Your task to perform on an android device: open sync settings in chrome Image 0: 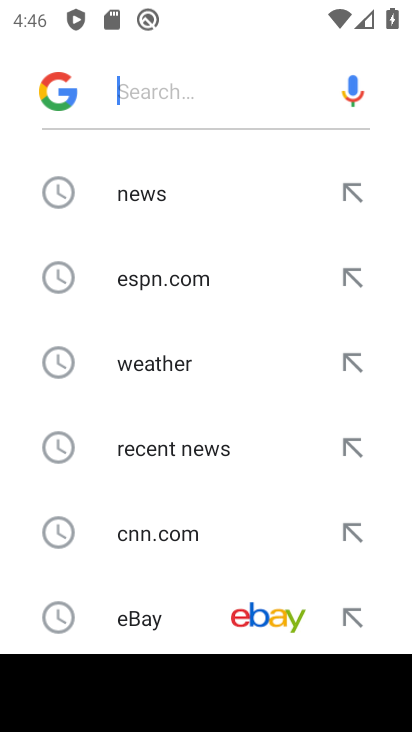
Step 0: press home button
Your task to perform on an android device: open sync settings in chrome Image 1: 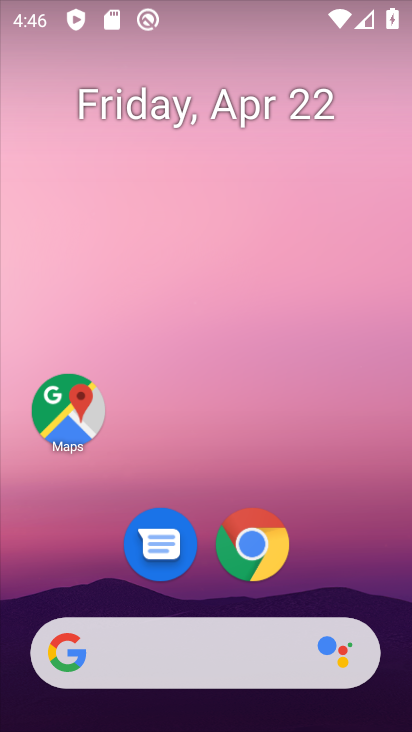
Step 1: click (259, 537)
Your task to perform on an android device: open sync settings in chrome Image 2: 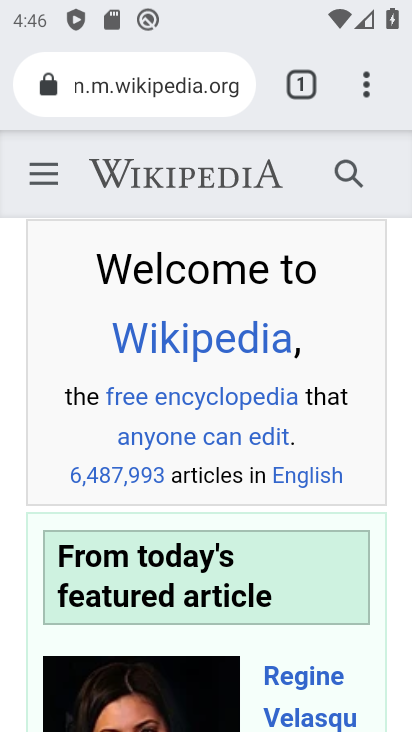
Step 2: click (368, 79)
Your task to perform on an android device: open sync settings in chrome Image 3: 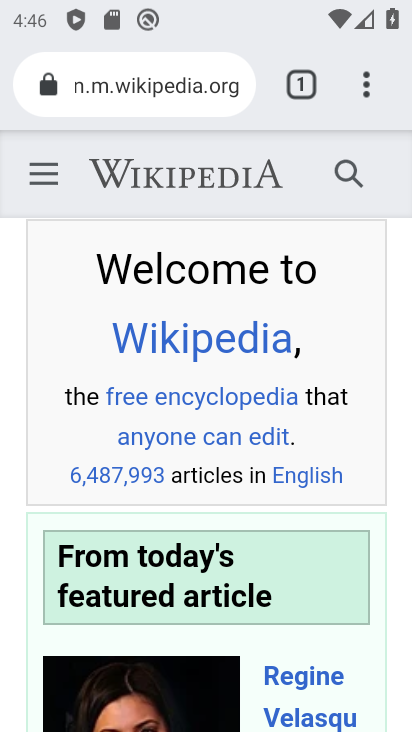
Step 3: click (368, 79)
Your task to perform on an android device: open sync settings in chrome Image 4: 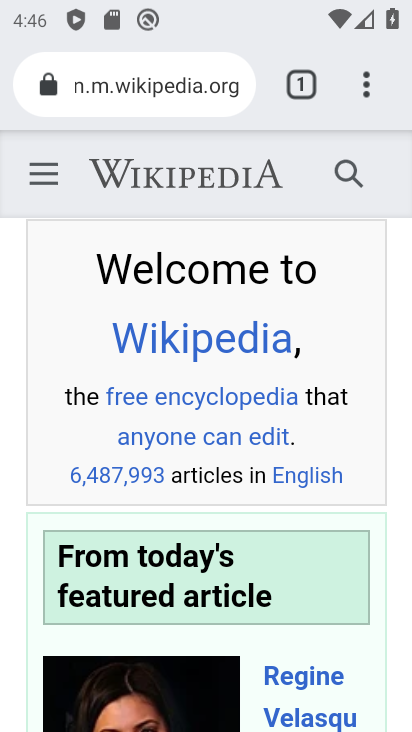
Step 4: click (368, 79)
Your task to perform on an android device: open sync settings in chrome Image 5: 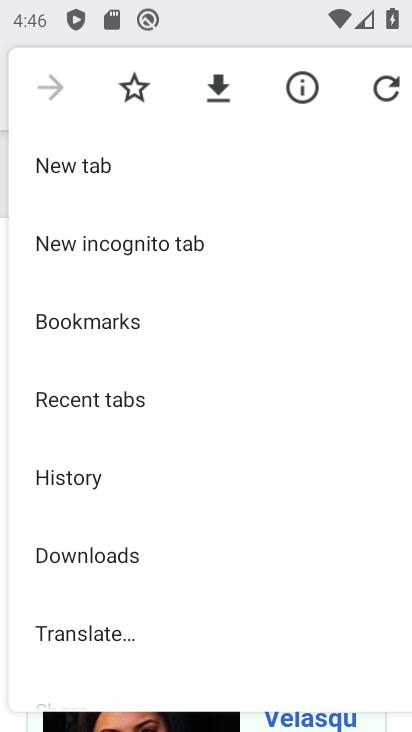
Step 5: drag from (69, 591) to (75, 194)
Your task to perform on an android device: open sync settings in chrome Image 6: 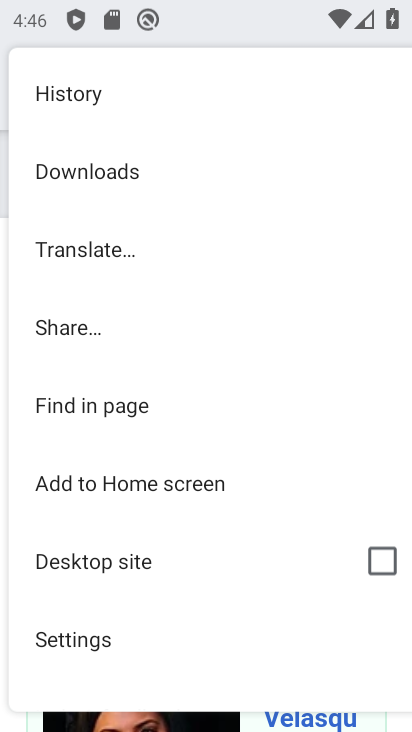
Step 6: click (71, 629)
Your task to perform on an android device: open sync settings in chrome Image 7: 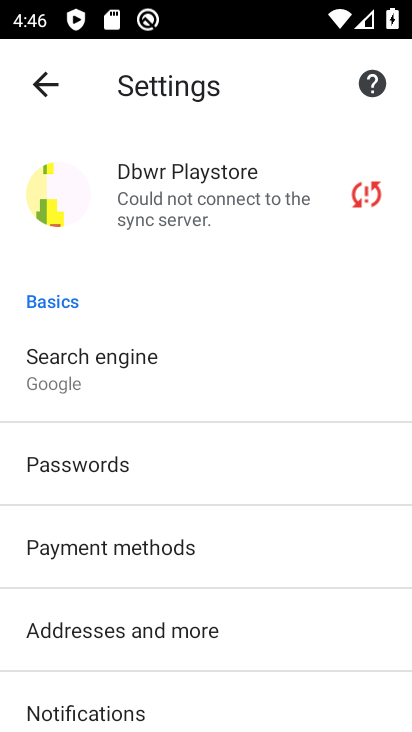
Step 7: drag from (146, 728) to (153, 362)
Your task to perform on an android device: open sync settings in chrome Image 8: 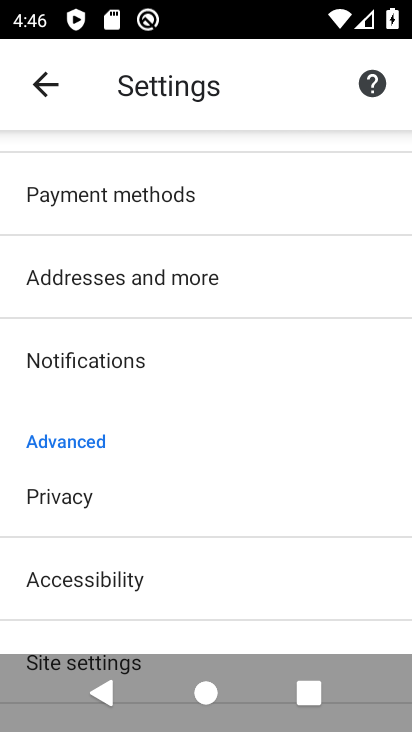
Step 8: drag from (192, 625) to (198, 342)
Your task to perform on an android device: open sync settings in chrome Image 9: 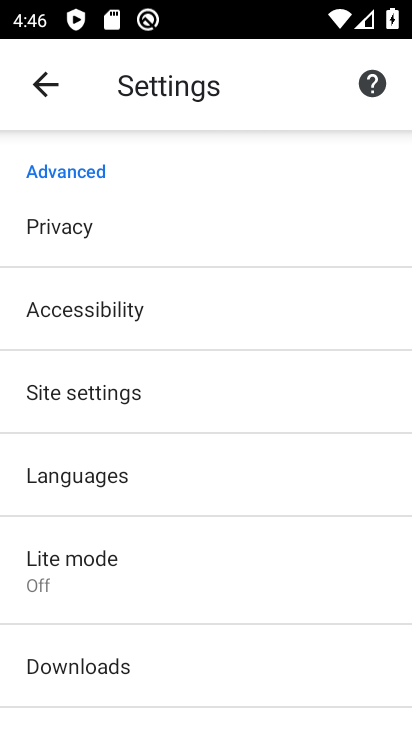
Step 9: drag from (193, 157) to (199, 642)
Your task to perform on an android device: open sync settings in chrome Image 10: 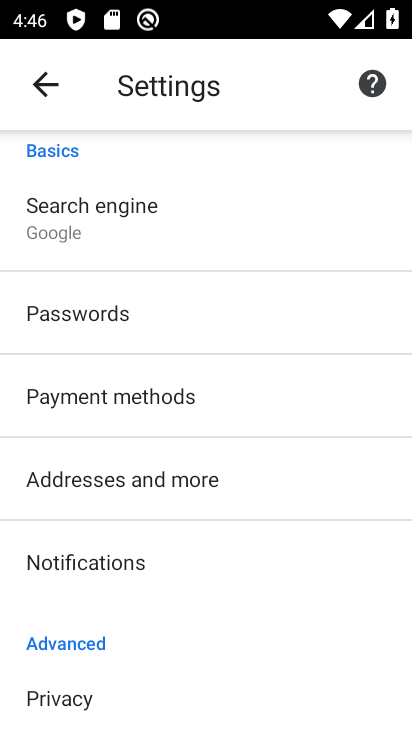
Step 10: drag from (244, 176) to (266, 661)
Your task to perform on an android device: open sync settings in chrome Image 11: 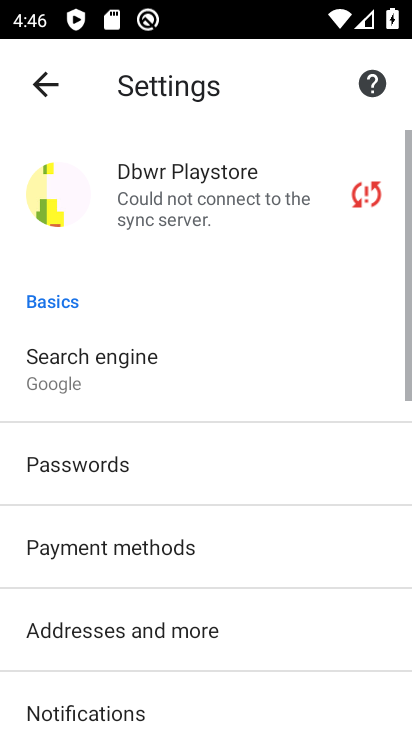
Step 11: click (180, 179)
Your task to perform on an android device: open sync settings in chrome Image 12: 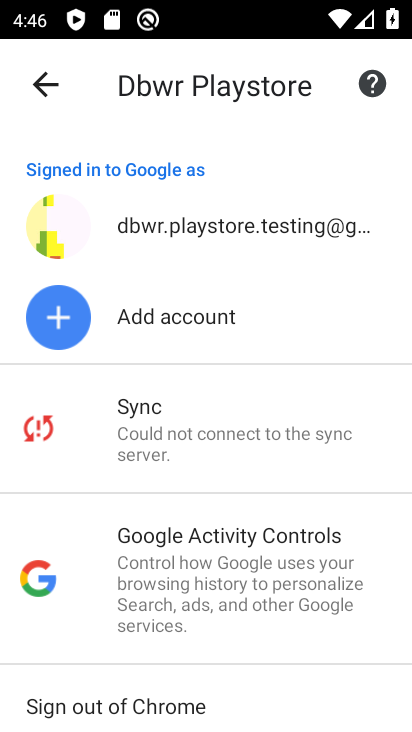
Step 12: click (136, 440)
Your task to perform on an android device: open sync settings in chrome Image 13: 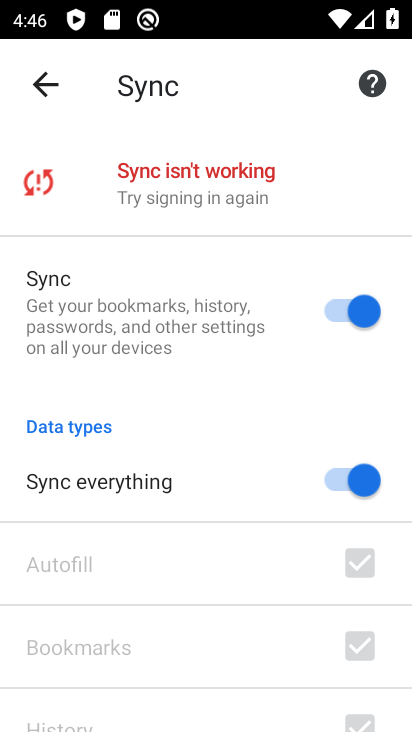
Step 13: click (230, 180)
Your task to perform on an android device: open sync settings in chrome Image 14: 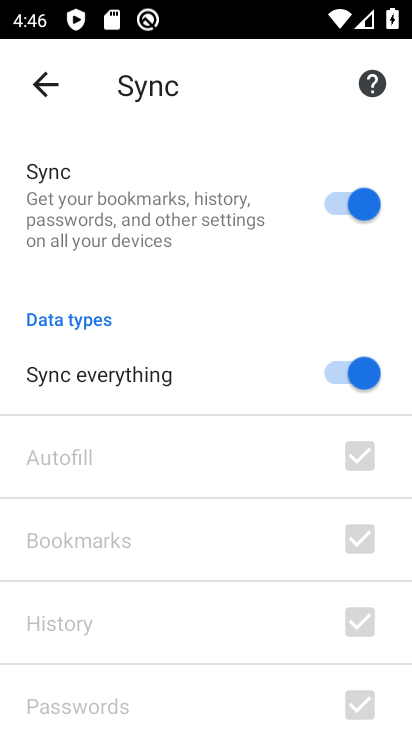
Step 14: task complete